Your task to perform on an android device: Go to battery settings Image 0: 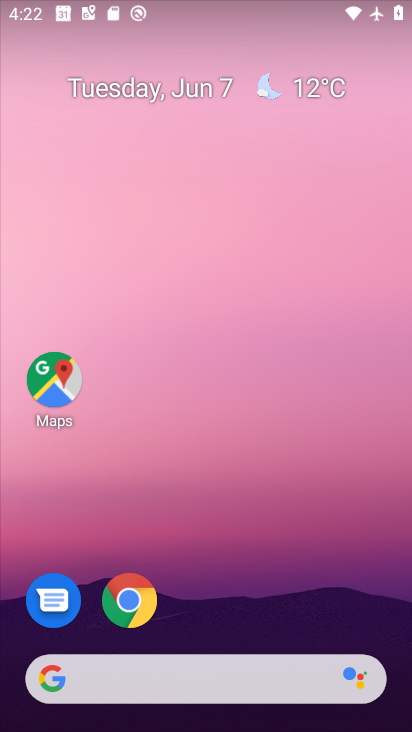
Step 0: drag from (316, 543) to (239, 185)
Your task to perform on an android device: Go to battery settings Image 1: 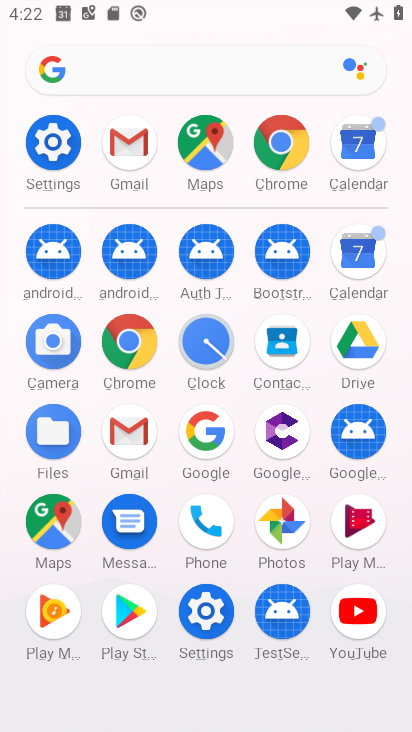
Step 1: click (32, 146)
Your task to perform on an android device: Go to battery settings Image 2: 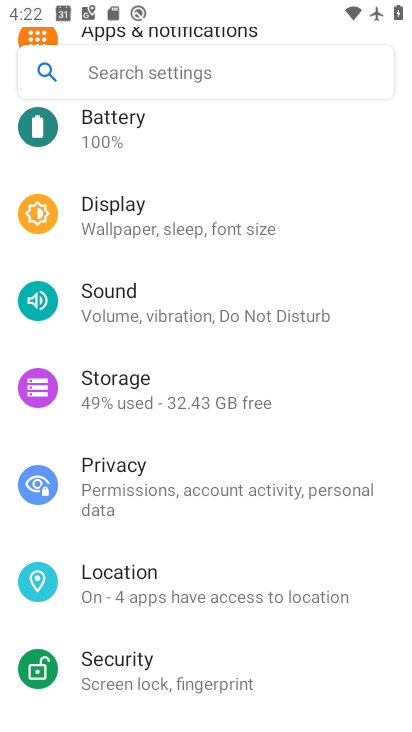
Step 2: drag from (168, 590) to (200, 630)
Your task to perform on an android device: Go to battery settings Image 3: 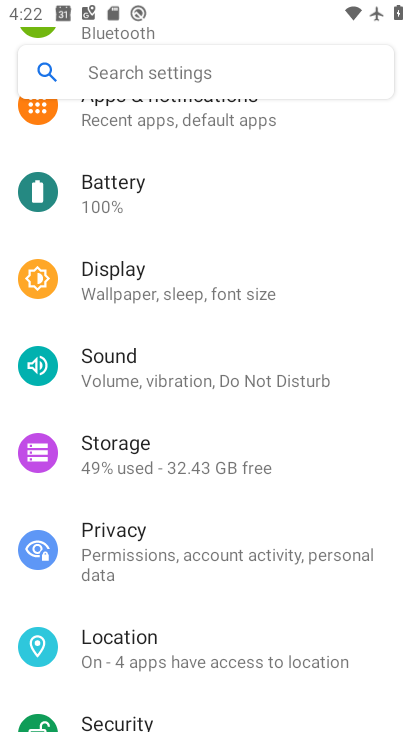
Step 3: click (169, 205)
Your task to perform on an android device: Go to battery settings Image 4: 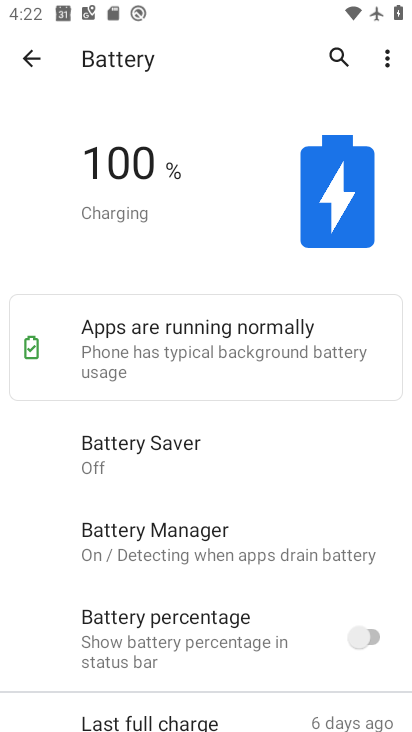
Step 4: task complete